Your task to perform on an android device: Open privacy settings Image 0: 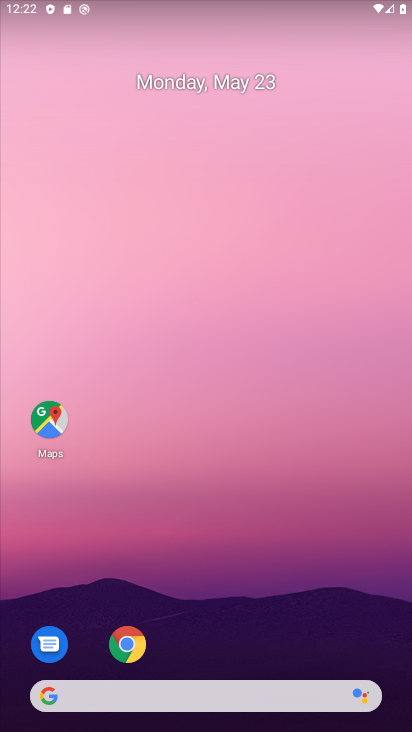
Step 0: drag from (294, 606) to (272, 63)
Your task to perform on an android device: Open privacy settings Image 1: 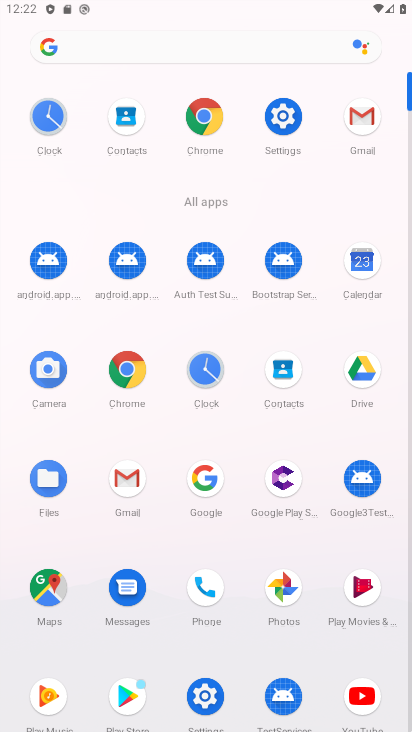
Step 1: click (282, 131)
Your task to perform on an android device: Open privacy settings Image 2: 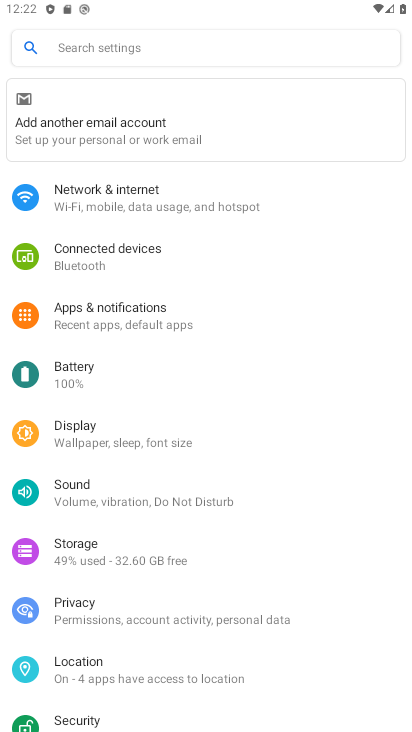
Step 2: click (168, 616)
Your task to perform on an android device: Open privacy settings Image 3: 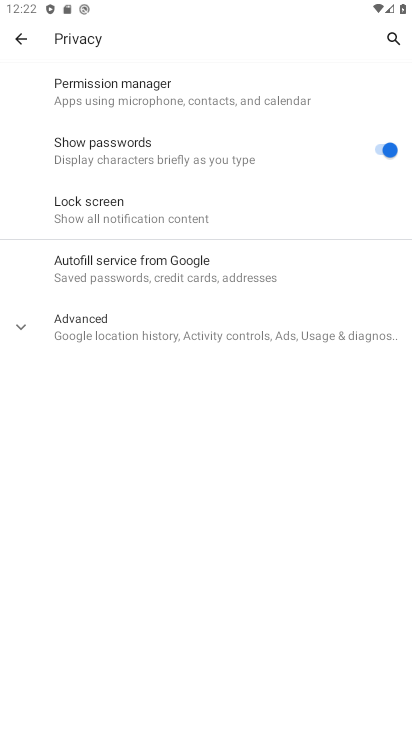
Step 3: task complete